Your task to perform on an android device: check storage Image 0: 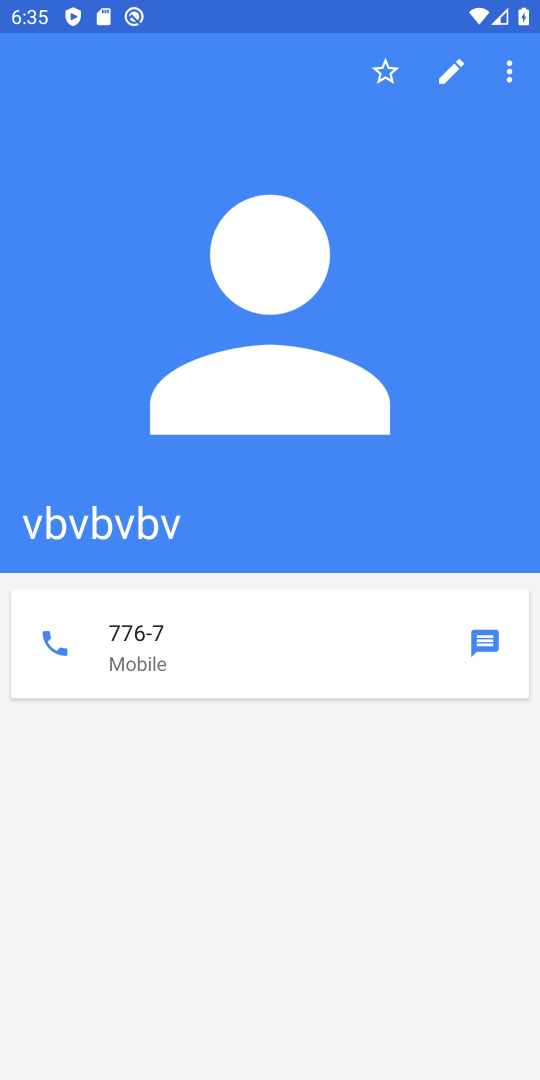
Step 0: press home button
Your task to perform on an android device: check storage Image 1: 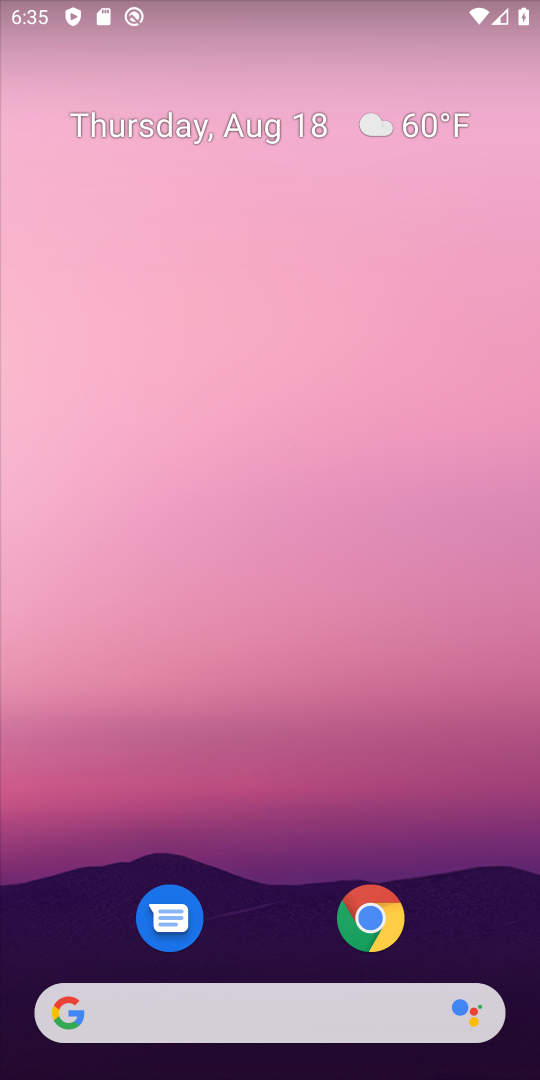
Step 1: drag from (291, 548) to (347, 180)
Your task to perform on an android device: check storage Image 2: 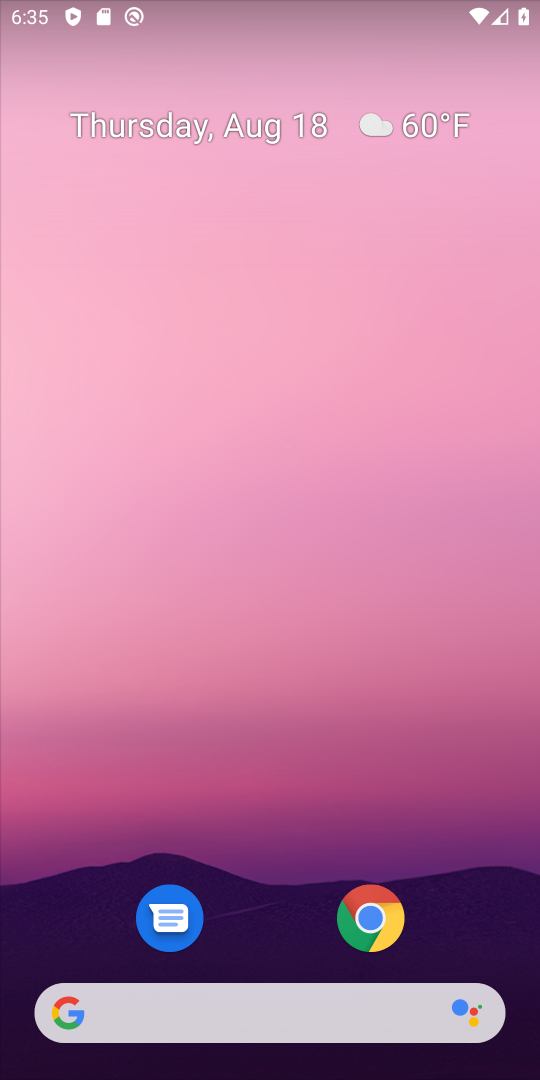
Step 2: drag from (272, 925) to (322, 0)
Your task to perform on an android device: check storage Image 3: 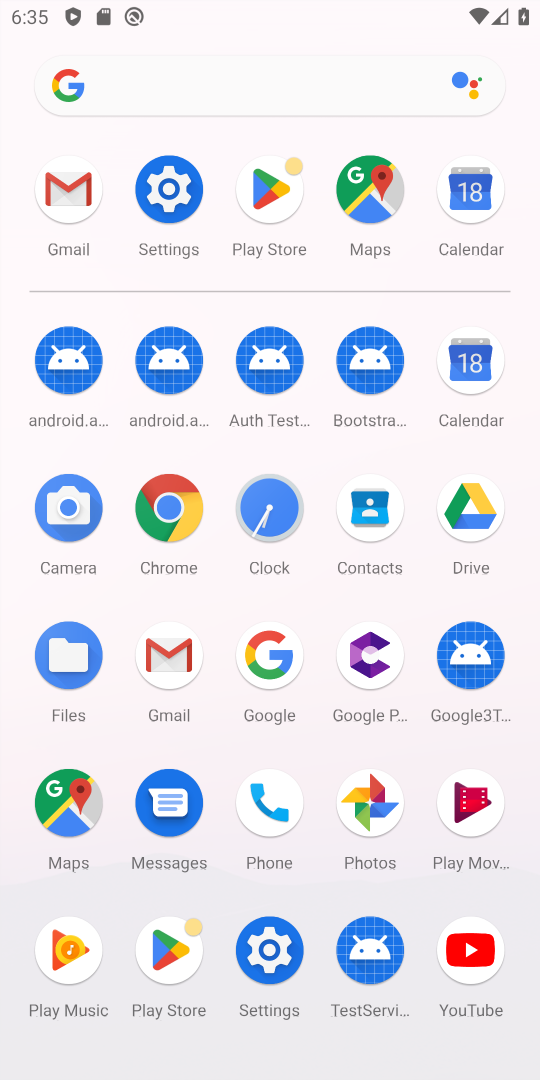
Step 3: click (165, 195)
Your task to perform on an android device: check storage Image 4: 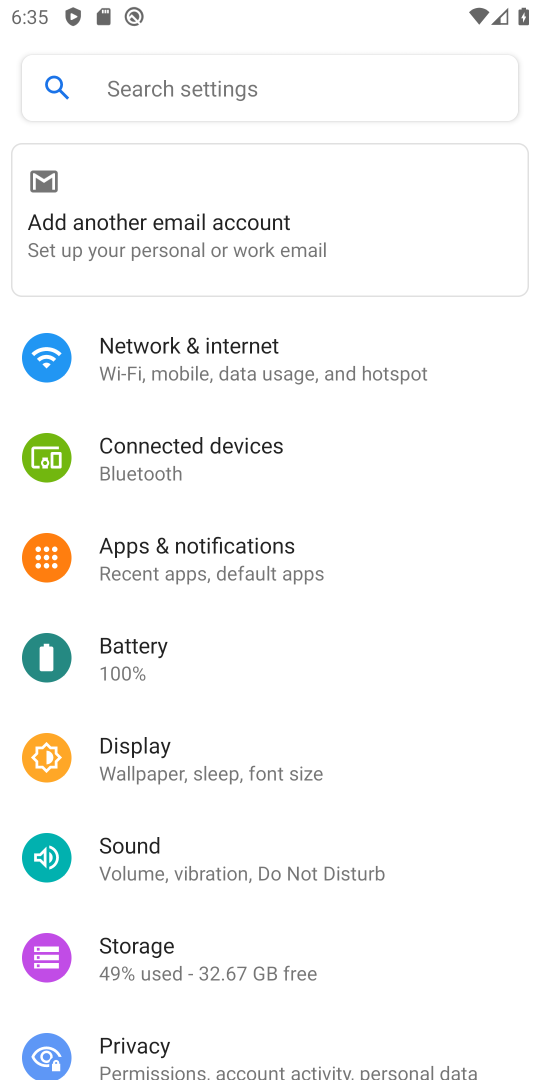
Step 4: click (126, 957)
Your task to perform on an android device: check storage Image 5: 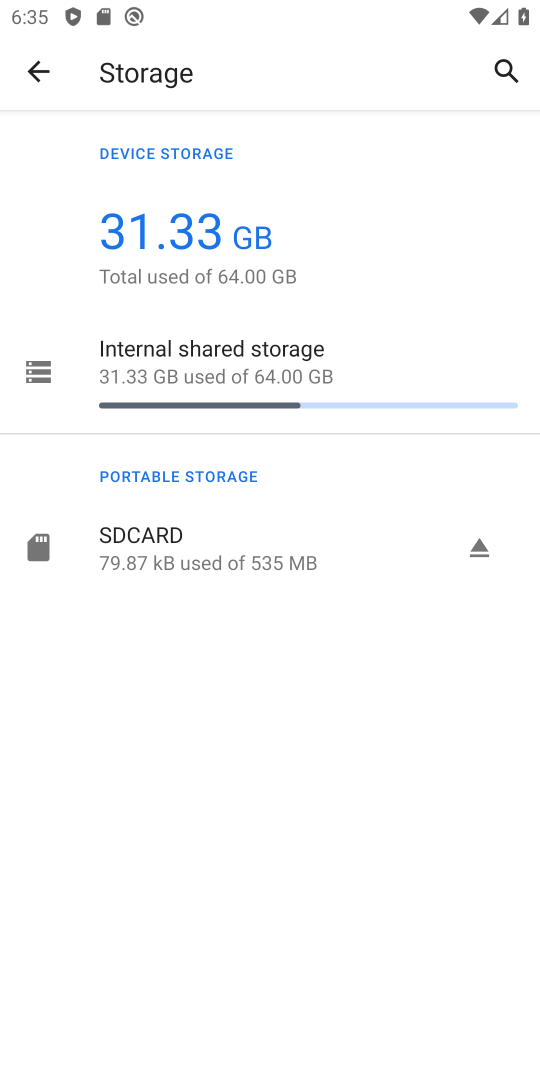
Step 5: task complete